Your task to perform on an android device: Search for vegetarian restaurants on Maps Image 0: 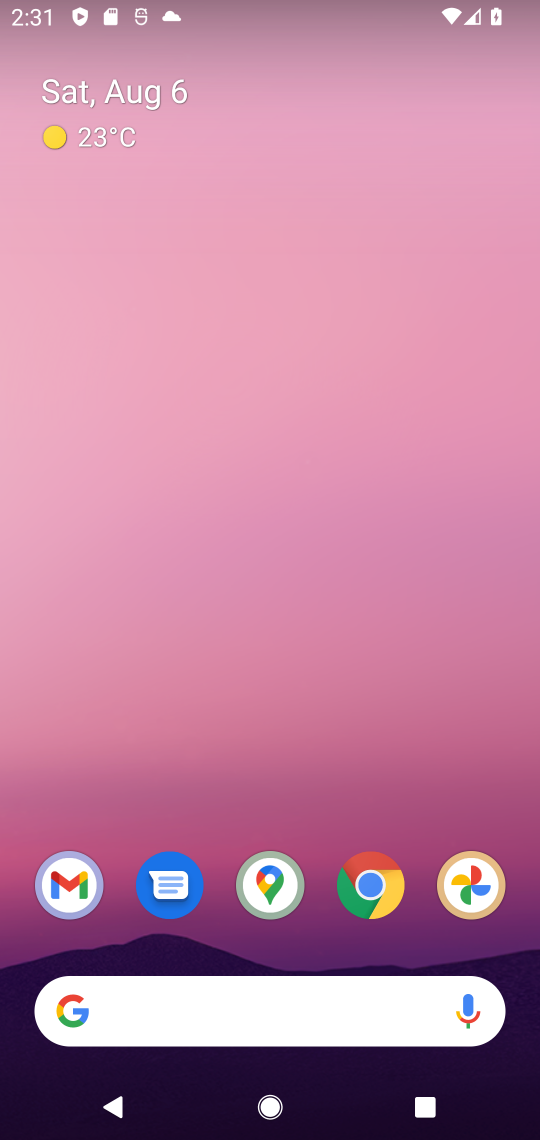
Step 0: drag from (375, 937) to (319, 55)
Your task to perform on an android device: Search for vegetarian restaurants on Maps Image 1: 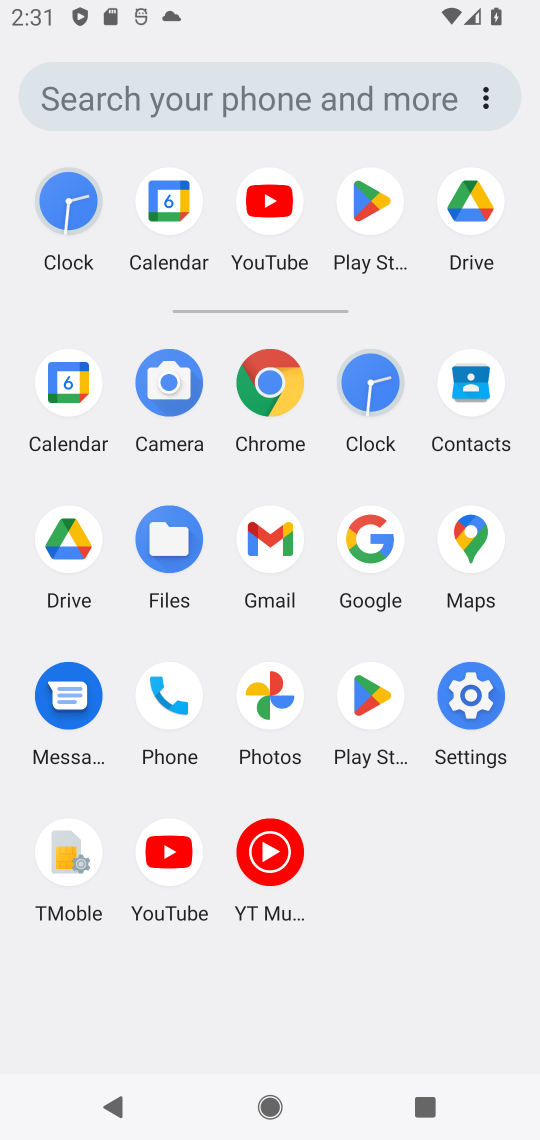
Step 1: click (463, 556)
Your task to perform on an android device: Search for vegetarian restaurants on Maps Image 2: 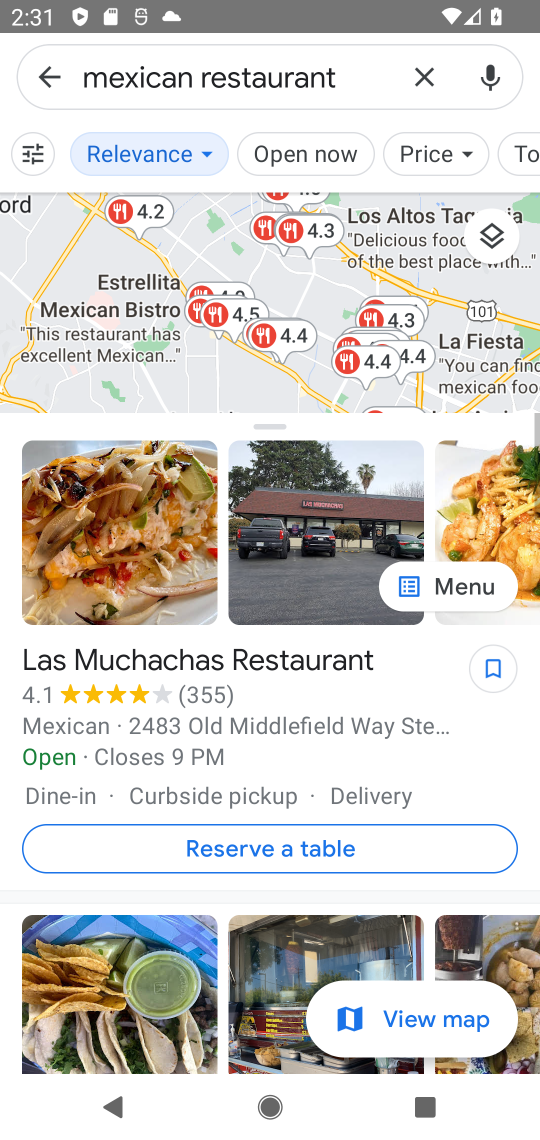
Step 2: click (426, 71)
Your task to perform on an android device: Search for vegetarian restaurants on Maps Image 3: 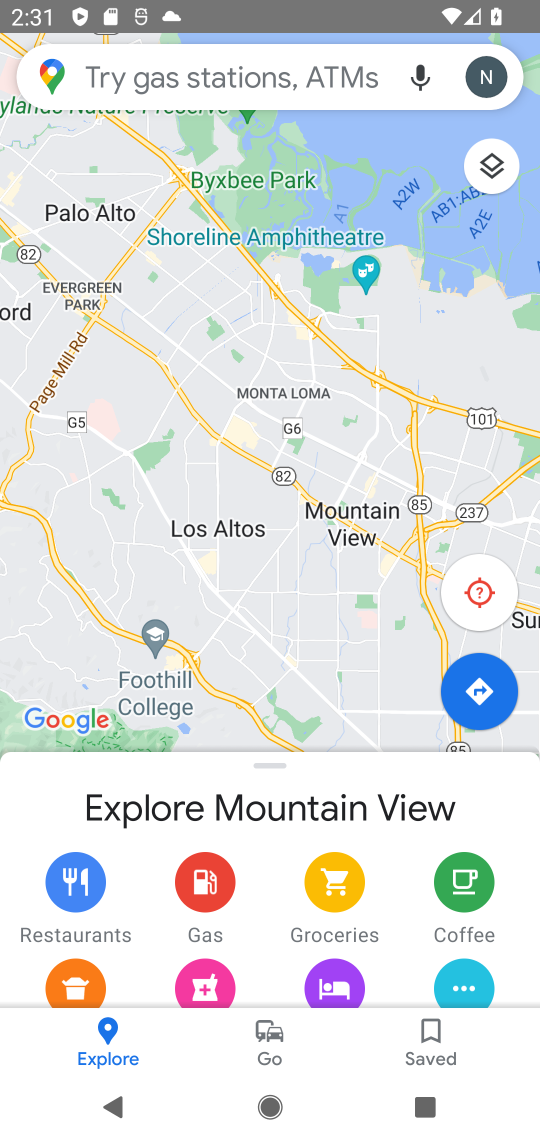
Step 3: click (186, 70)
Your task to perform on an android device: Search for vegetarian restaurants on Maps Image 4: 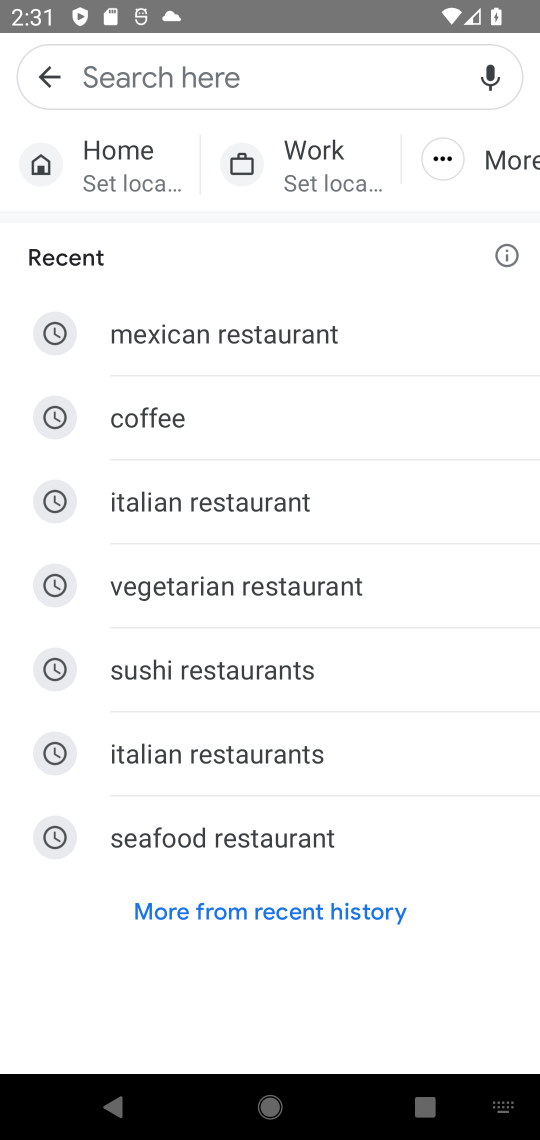
Step 4: click (304, 597)
Your task to perform on an android device: Search for vegetarian restaurants on Maps Image 5: 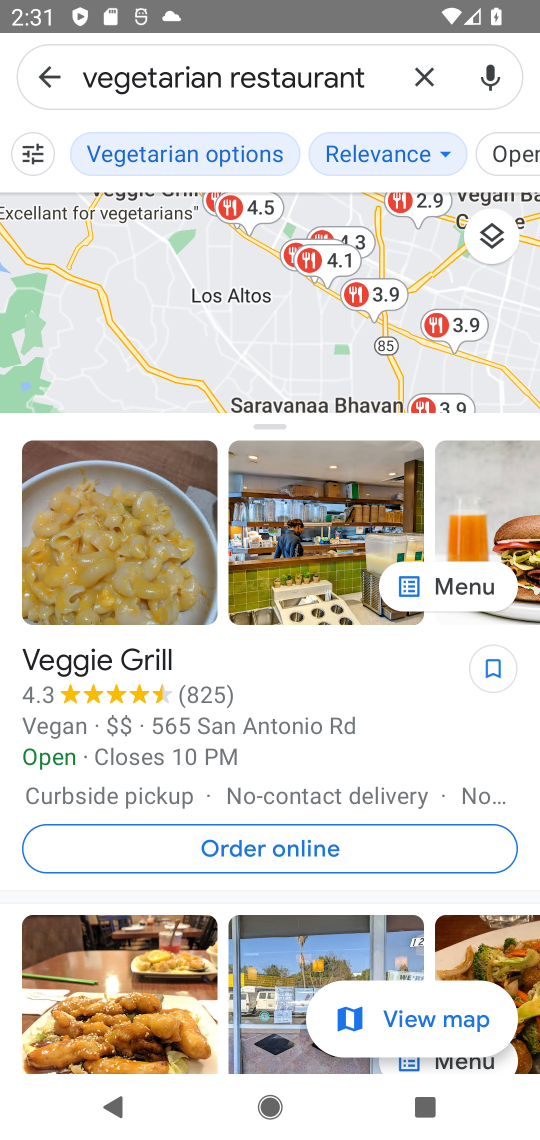
Step 5: task complete